Your task to perform on an android device: install app "Messenger Lite" Image 0: 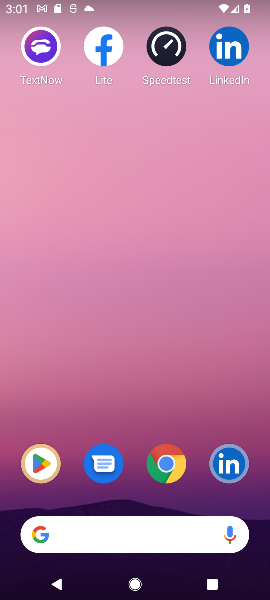
Step 0: drag from (91, 537) to (160, 110)
Your task to perform on an android device: install app "Messenger Lite" Image 1: 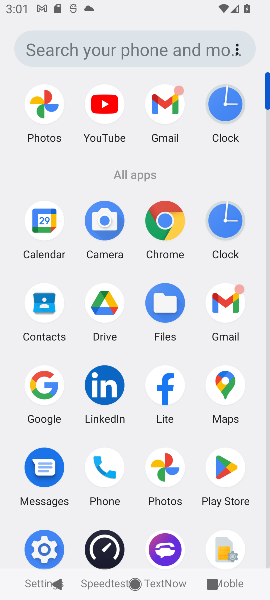
Step 1: drag from (130, 448) to (134, 243)
Your task to perform on an android device: install app "Messenger Lite" Image 2: 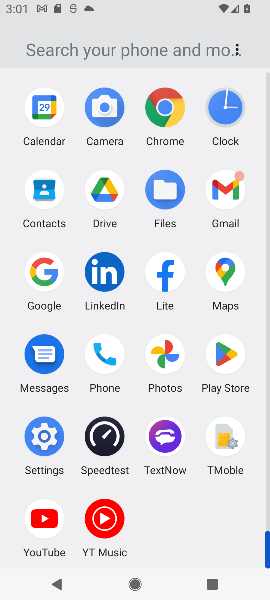
Step 2: click (225, 354)
Your task to perform on an android device: install app "Messenger Lite" Image 3: 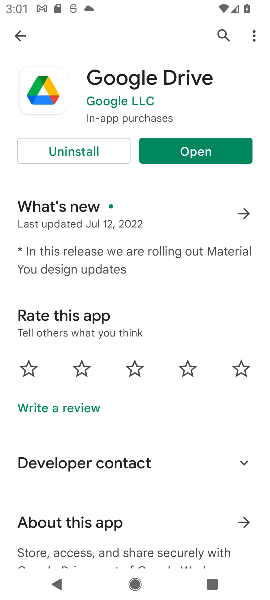
Step 3: click (220, 33)
Your task to perform on an android device: install app "Messenger Lite" Image 4: 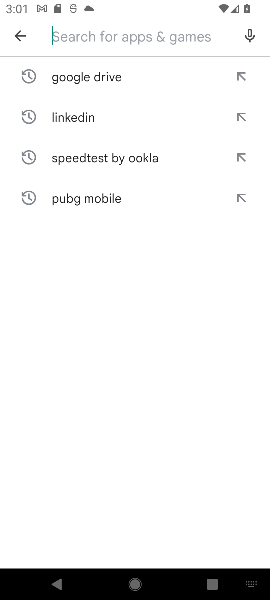
Step 4: click (171, 35)
Your task to perform on an android device: install app "Messenger Lite" Image 5: 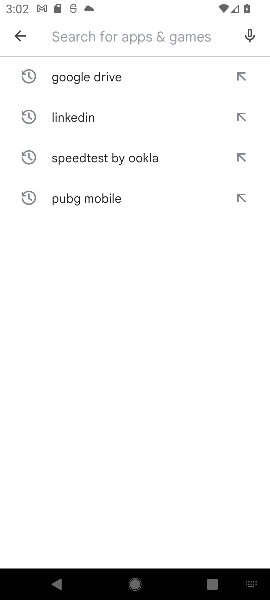
Step 5: type "Messenger Lite"
Your task to perform on an android device: install app "Messenger Lite" Image 6: 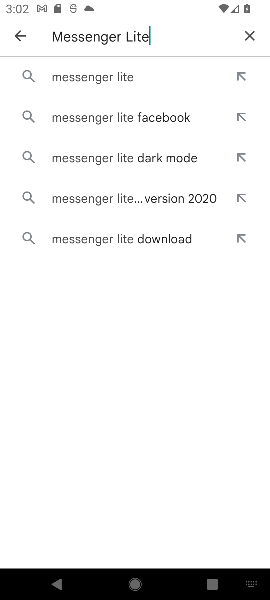
Step 6: click (105, 79)
Your task to perform on an android device: install app "Messenger Lite" Image 7: 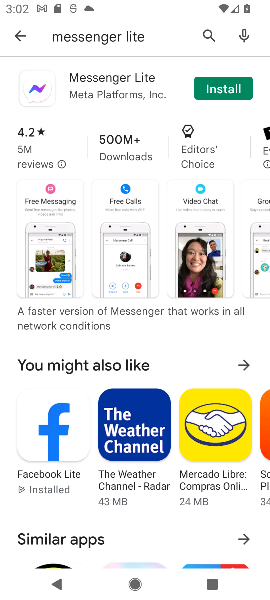
Step 7: click (226, 85)
Your task to perform on an android device: install app "Messenger Lite" Image 8: 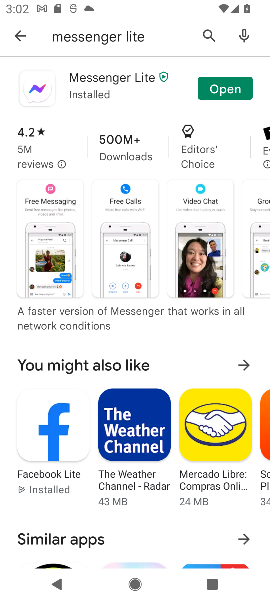
Step 8: task complete